Your task to perform on an android device: Show me popular videos on Youtube Image 0: 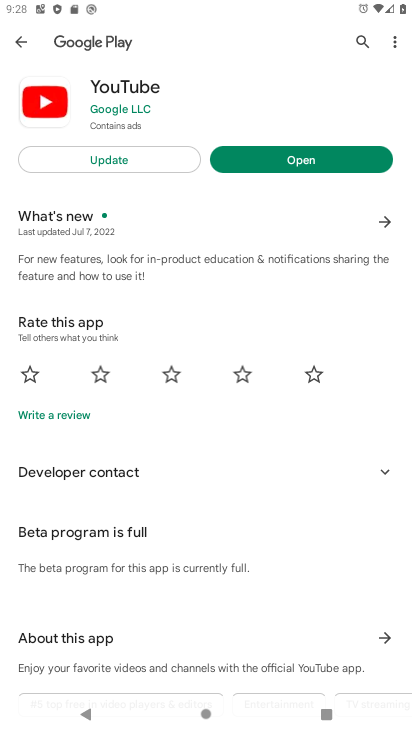
Step 0: press home button
Your task to perform on an android device: Show me popular videos on Youtube Image 1: 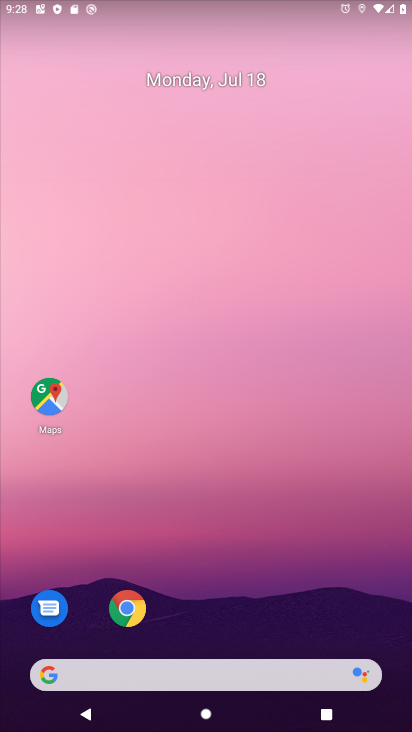
Step 1: click (282, 138)
Your task to perform on an android device: Show me popular videos on Youtube Image 2: 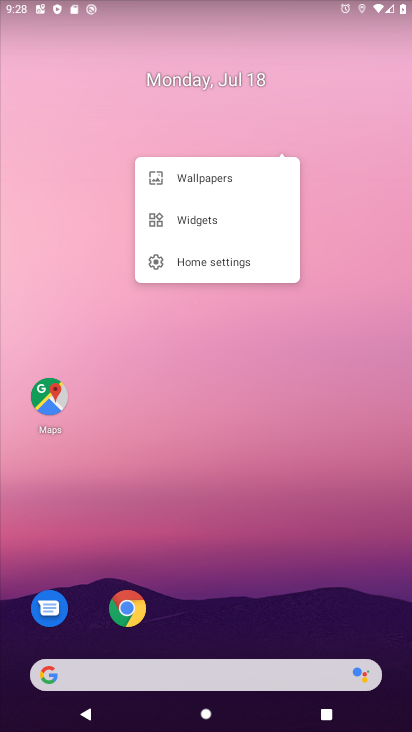
Step 2: drag from (40, 697) to (251, 199)
Your task to perform on an android device: Show me popular videos on Youtube Image 3: 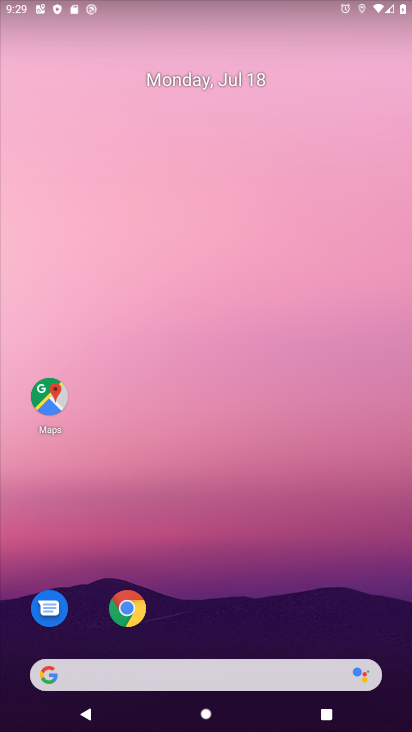
Step 3: drag from (291, 100) to (309, 43)
Your task to perform on an android device: Show me popular videos on Youtube Image 4: 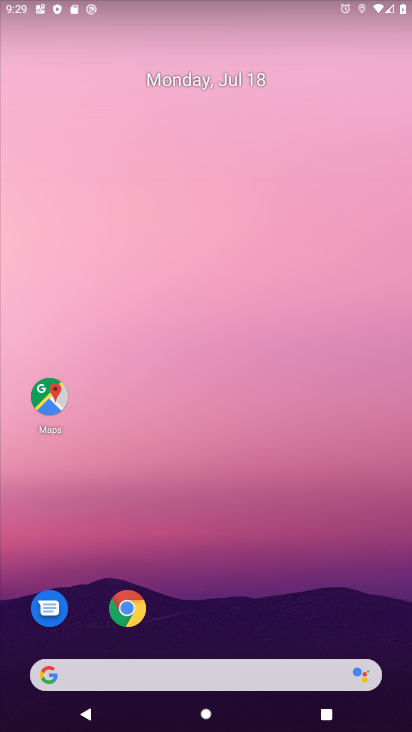
Step 4: drag from (29, 703) to (204, 205)
Your task to perform on an android device: Show me popular videos on Youtube Image 5: 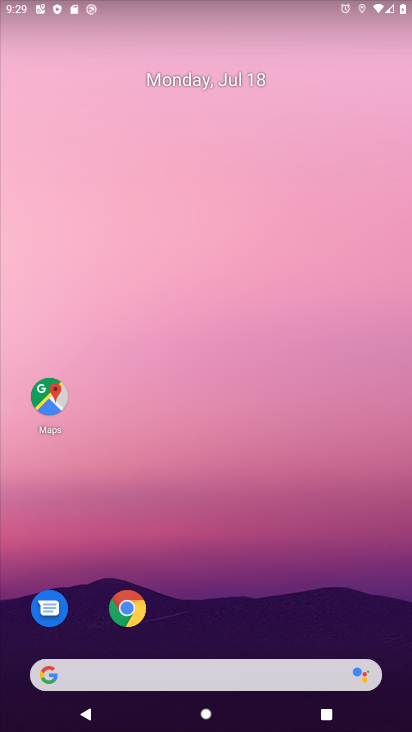
Step 5: drag from (28, 700) to (286, 269)
Your task to perform on an android device: Show me popular videos on Youtube Image 6: 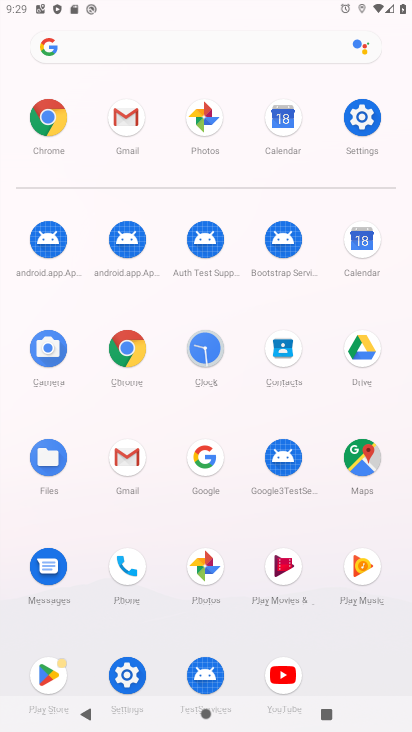
Step 6: click (286, 679)
Your task to perform on an android device: Show me popular videos on Youtube Image 7: 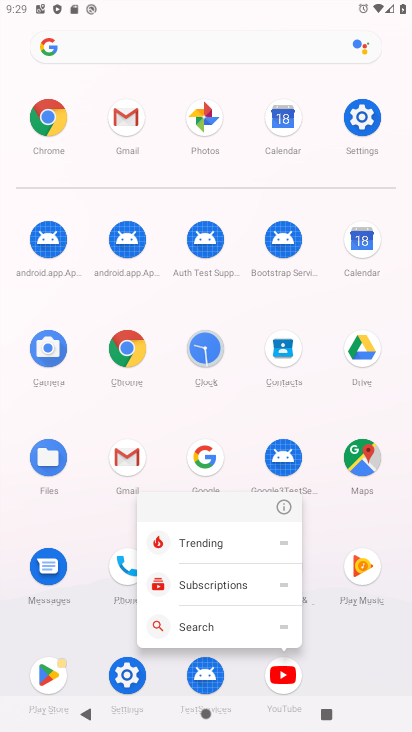
Step 7: click (278, 680)
Your task to perform on an android device: Show me popular videos on Youtube Image 8: 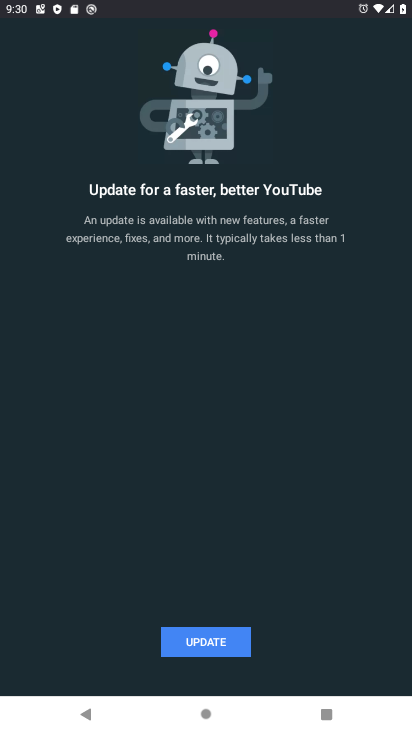
Step 8: task complete